Your task to perform on an android device: Search for pizza restaurants on Maps Image 0: 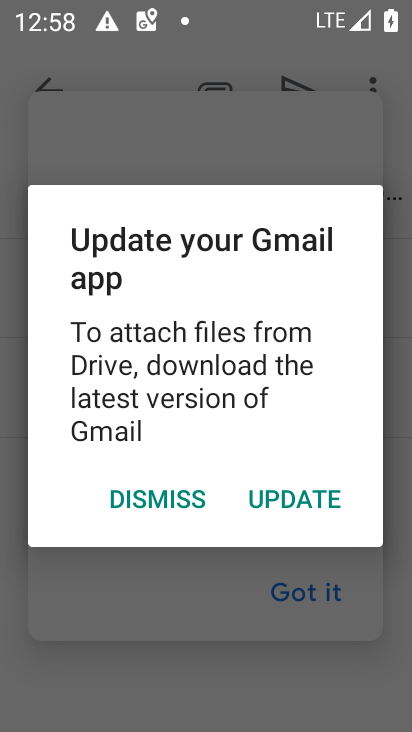
Step 0: press home button
Your task to perform on an android device: Search for pizza restaurants on Maps Image 1: 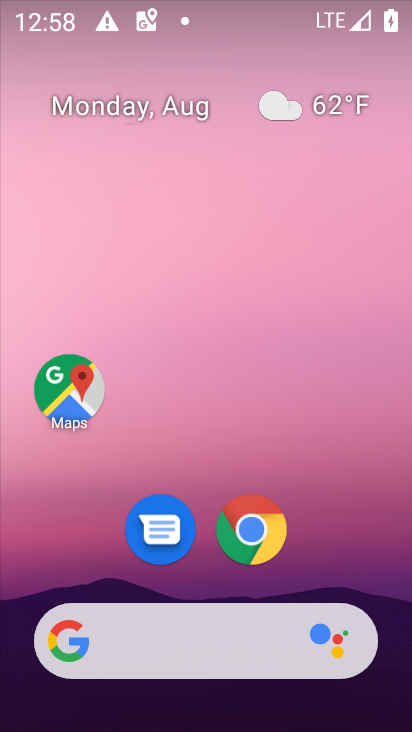
Step 1: drag from (162, 596) to (149, 190)
Your task to perform on an android device: Search for pizza restaurants on Maps Image 2: 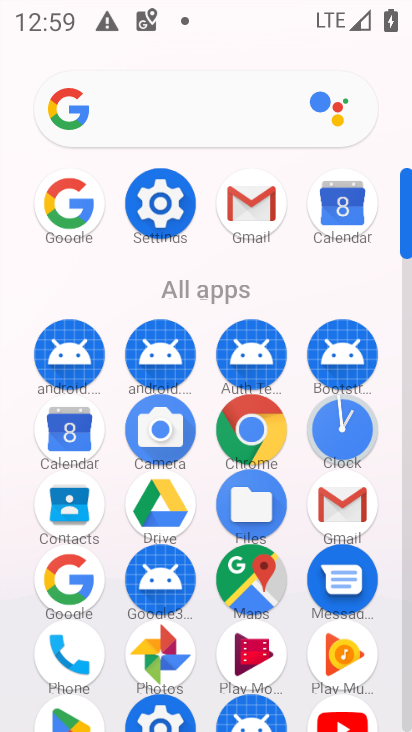
Step 2: click (257, 587)
Your task to perform on an android device: Search for pizza restaurants on Maps Image 3: 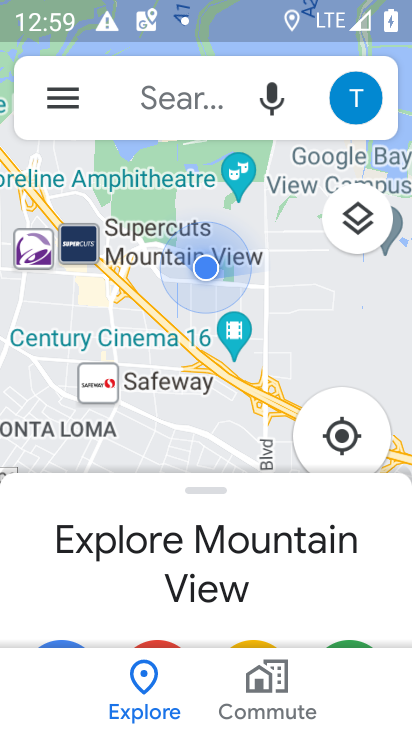
Step 3: click (139, 110)
Your task to perform on an android device: Search for pizza restaurants on Maps Image 4: 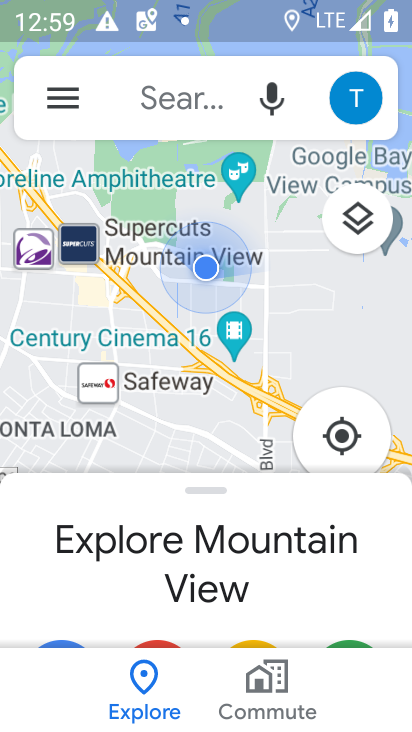
Step 4: click (149, 112)
Your task to perform on an android device: Search for pizza restaurants on Maps Image 5: 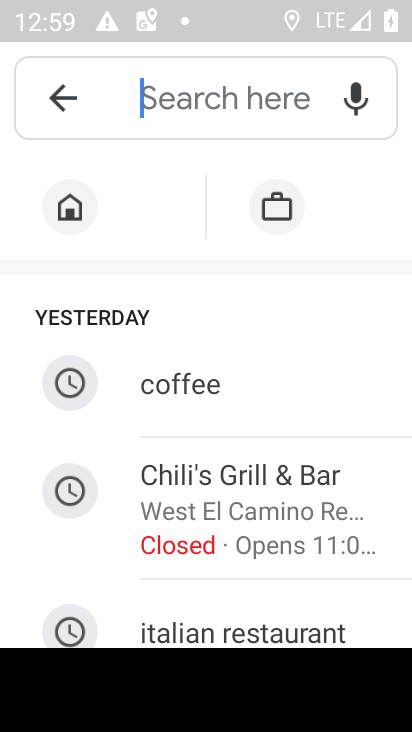
Step 5: drag from (213, 603) to (173, 308)
Your task to perform on an android device: Search for pizza restaurants on Maps Image 6: 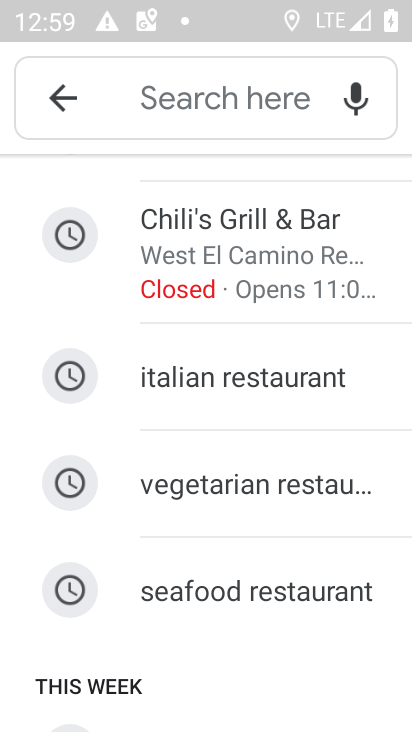
Step 6: drag from (219, 596) to (188, 333)
Your task to perform on an android device: Search for pizza restaurants on Maps Image 7: 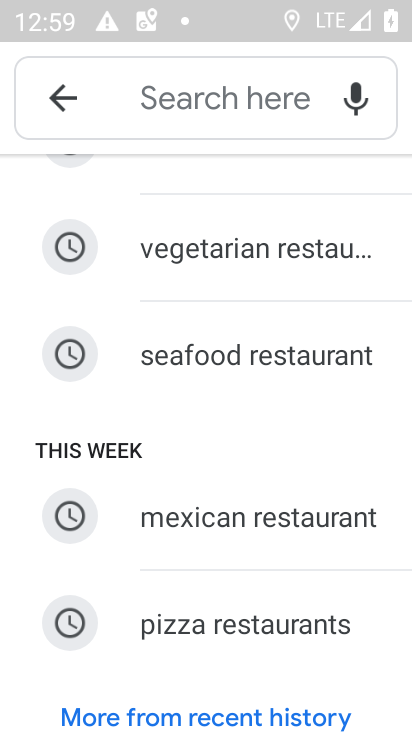
Step 7: click (222, 617)
Your task to perform on an android device: Search for pizza restaurants on Maps Image 8: 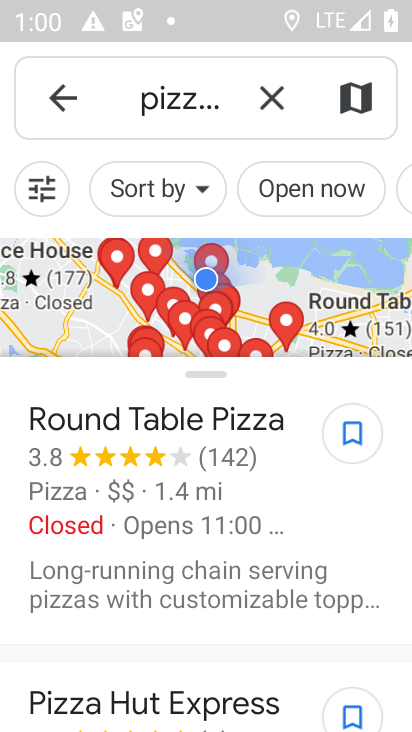
Step 8: task complete